Your task to perform on an android device: manage bookmarks in the chrome app Image 0: 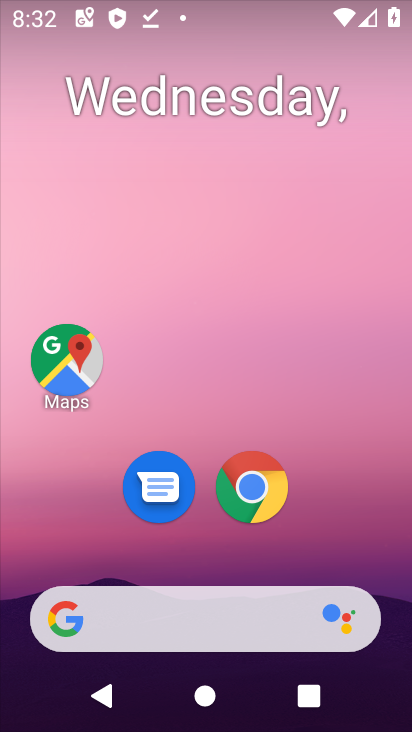
Step 0: drag from (271, 664) to (190, 17)
Your task to perform on an android device: manage bookmarks in the chrome app Image 1: 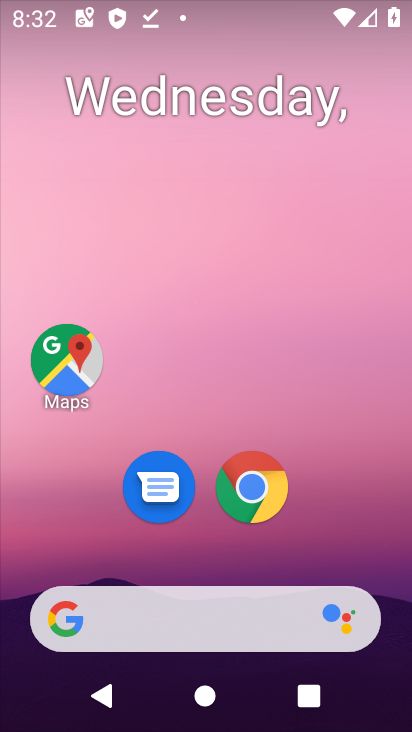
Step 1: drag from (288, 509) to (196, 88)
Your task to perform on an android device: manage bookmarks in the chrome app Image 2: 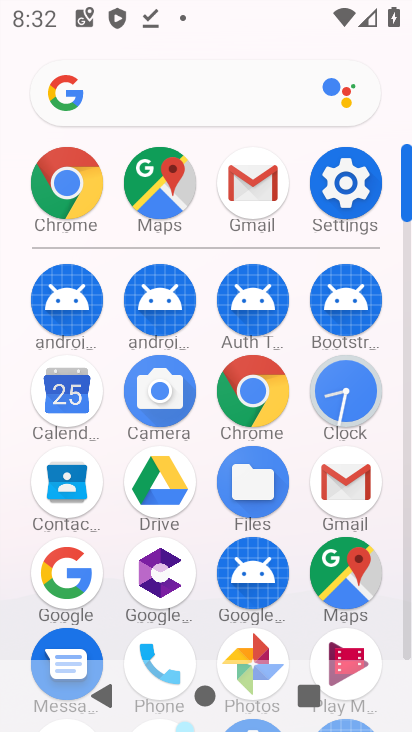
Step 2: click (251, 403)
Your task to perform on an android device: manage bookmarks in the chrome app Image 3: 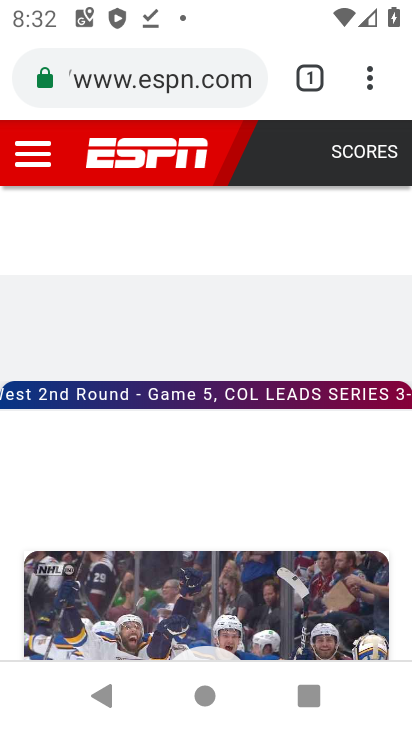
Step 3: drag from (367, 84) to (108, 308)
Your task to perform on an android device: manage bookmarks in the chrome app Image 4: 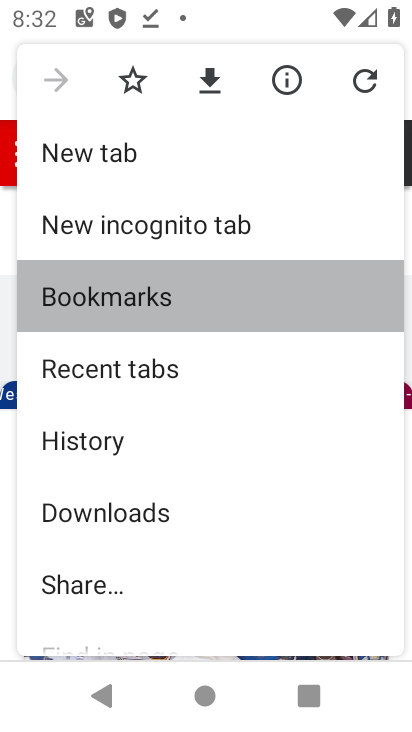
Step 4: click (109, 300)
Your task to perform on an android device: manage bookmarks in the chrome app Image 5: 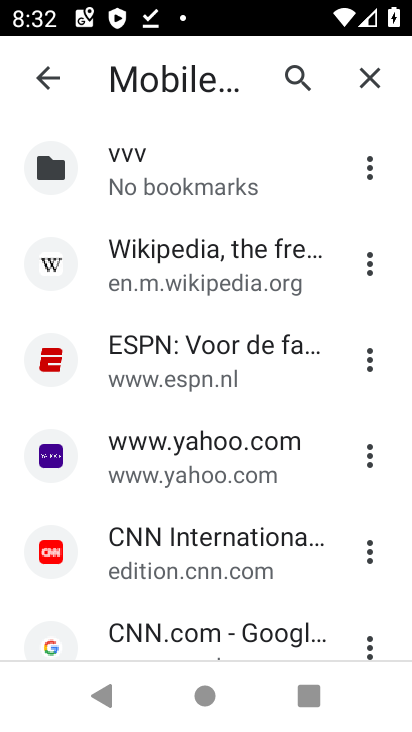
Step 5: click (367, 161)
Your task to perform on an android device: manage bookmarks in the chrome app Image 6: 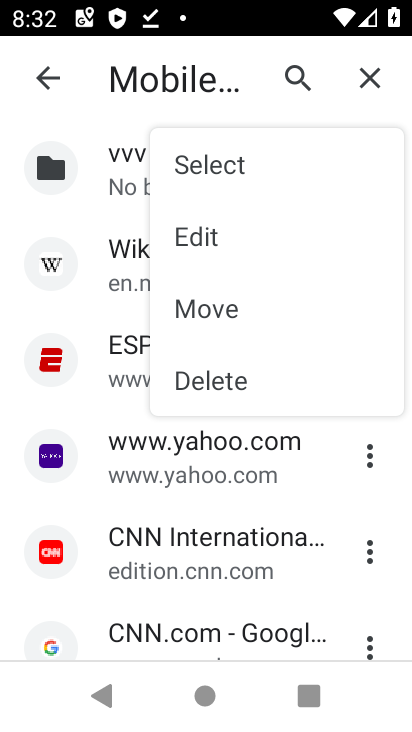
Step 6: click (204, 382)
Your task to perform on an android device: manage bookmarks in the chrome app Image 7: 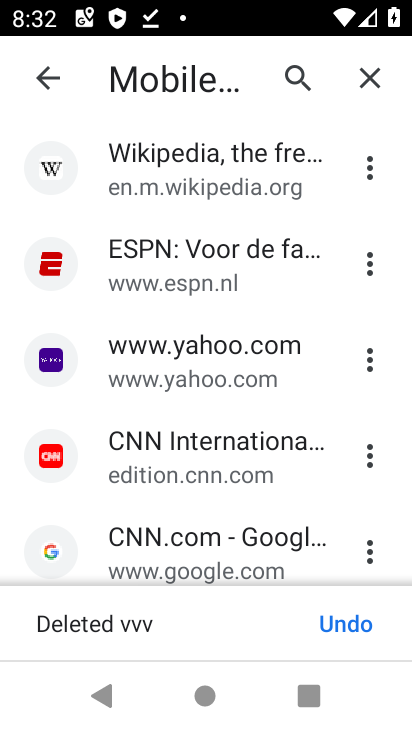
Step 7: task complete